Your task to perform on an android device: see tabs open on other devices in the chrome app Image 0: 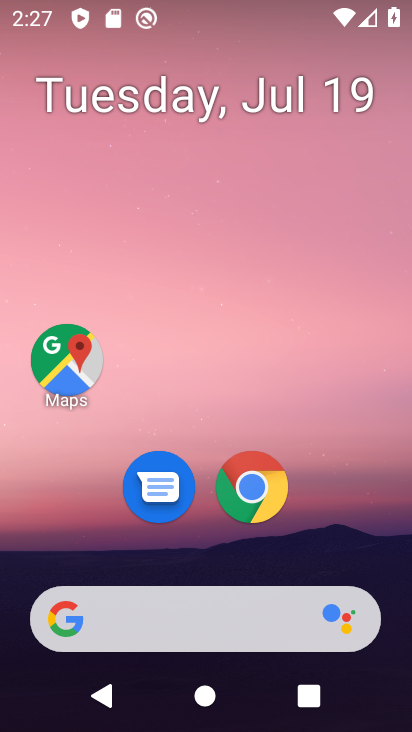
Step 0: click (243, 502)
Your task to perform on an android device: see tabs open on other devices in the chrome app Image 1: 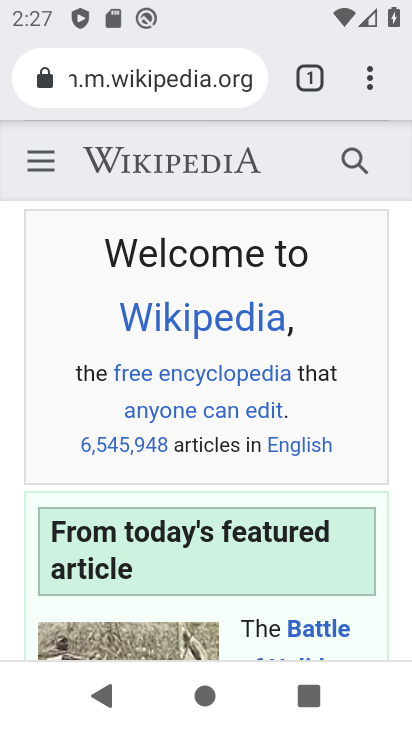
Step 1: task complete